Your task to perform on an android device: Open internet settings Image 0: 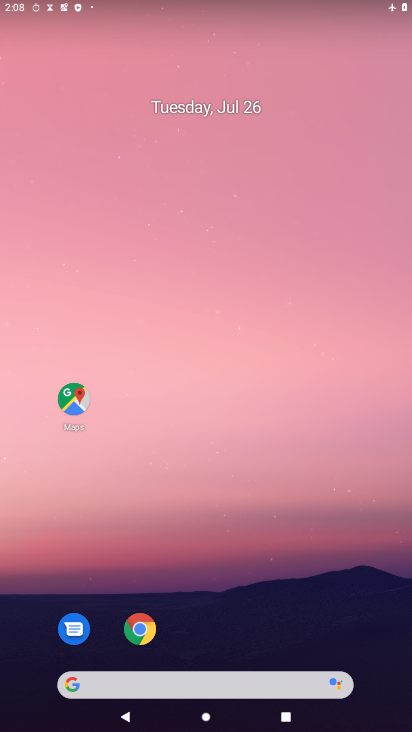
Step 0: drag from (241, 651) to (409, 53)
Your task to perform on an android device: Open internet settings Image 1: 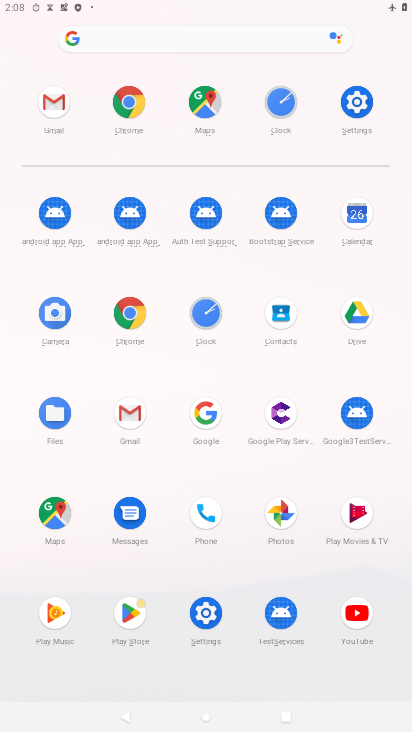
Step 1: click (357, 95)
Your task to perform on an android device: Open internet settings Image 2: 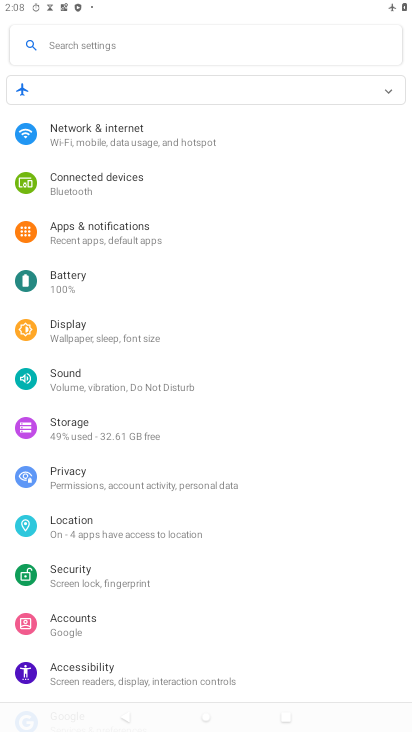
Step 2: click (138, 145)
Your task to perform on an android device: Open internet settings Image 3: 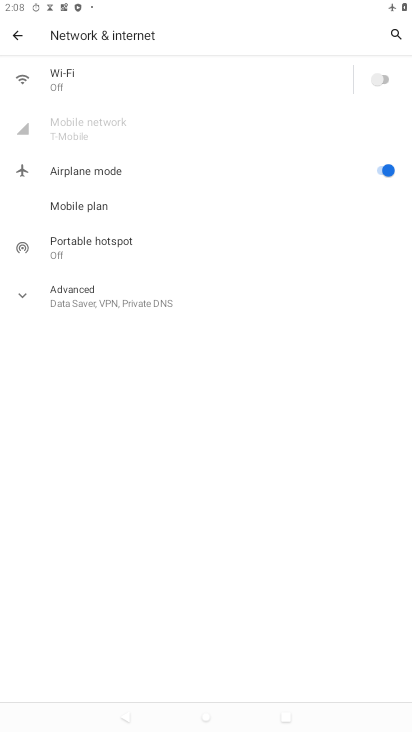
Step 3: task complete